Your task to perform on an android device: Open Reddit.com Image 0: 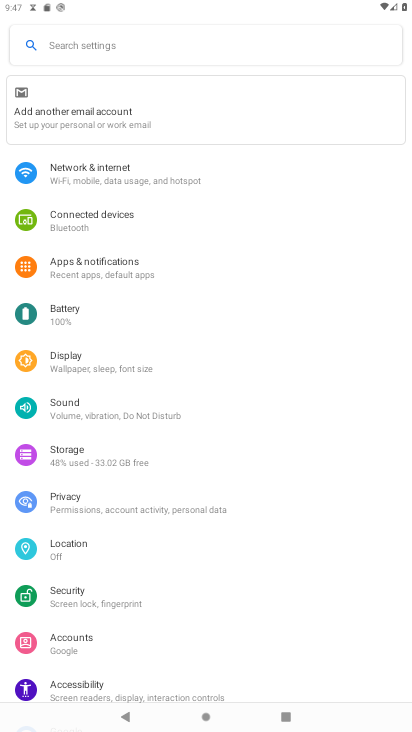
Step 0: press home button
Your task to perform on an android device: Open Reddit.com Image 1: 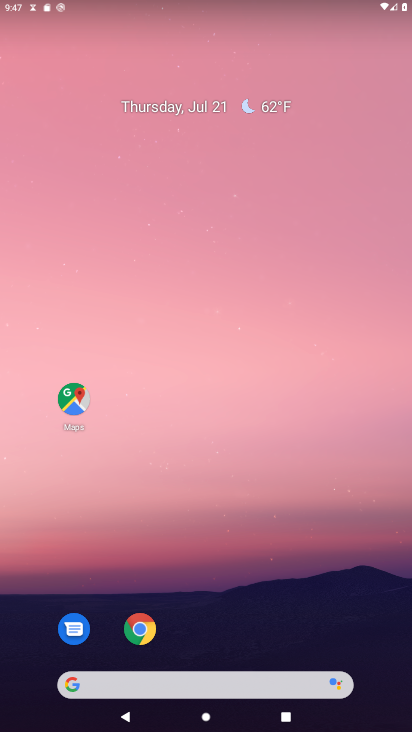
Step 1: drag from (233, 642) to (222, 220)
Your task to perform on an android device: Open Reddit.com Image 2: 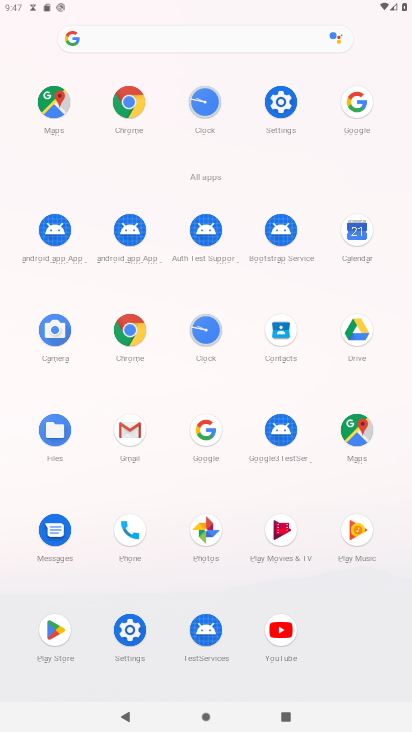
Step 2: click (128, 106)
Your task to perform on an android device: Open Reddit.com Image 3: 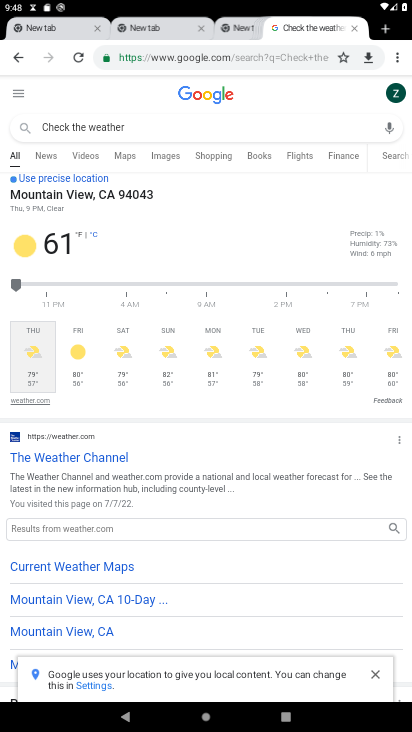
Step 3: click (351, 29)
Your task to perform on an android device: Open Reddit.com Image 4: 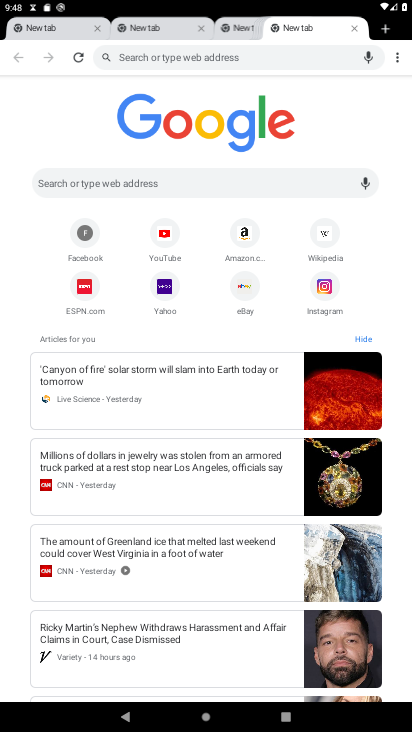
Step 4: click (176, 176)
Your task to perform on an android device: Open Reddit.com Image 5: 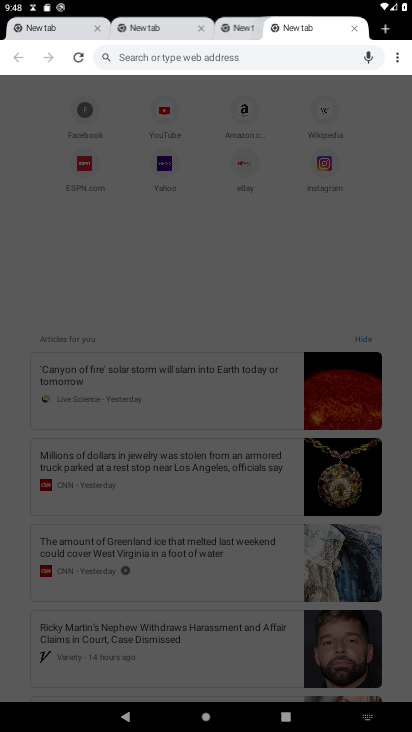
Step 5: type "Reddit.com "
Your task to perform on an android device: Open Reddit.com Image 6: 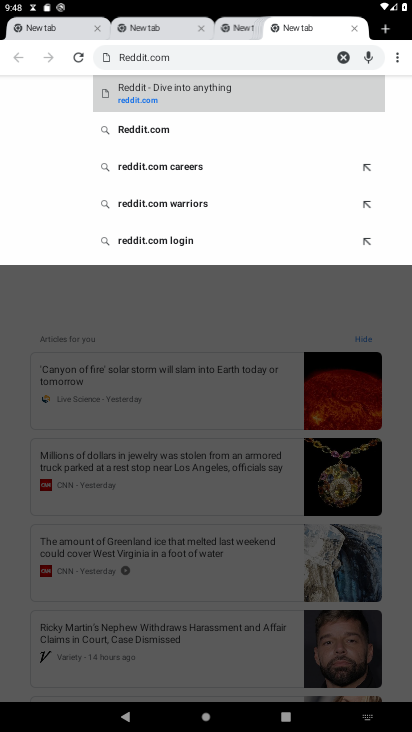
Step 6: click (143, 95)
Your task to perform on an android device: Open Reddit.com Image 7: 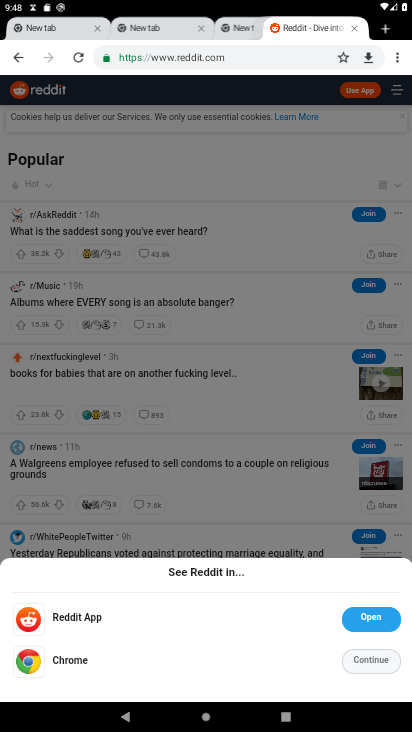
Step 7: task complete